Your task to perform on an android device: change keyboard looks Image 0: 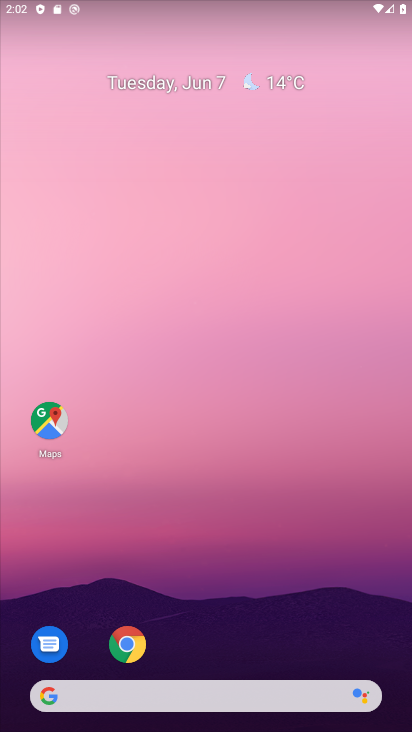
Step 0: drag from (329, 631) to (303, 182)
Your task to perform on an android device: change keyboard looks Image 1: 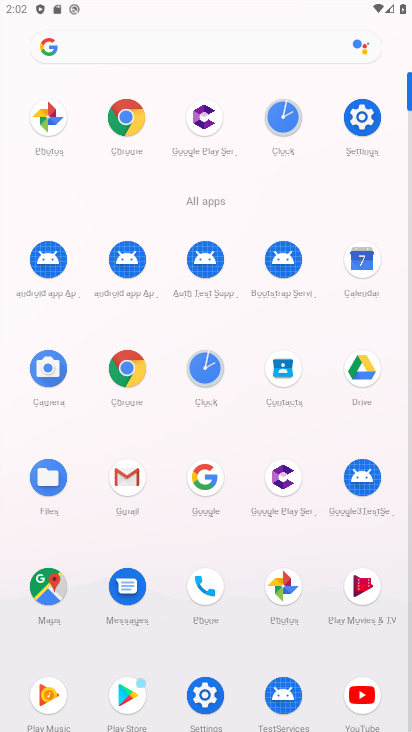
Step 1: click (358, 127)
Your task to perform on an android device: change keyboard looks Image 2: 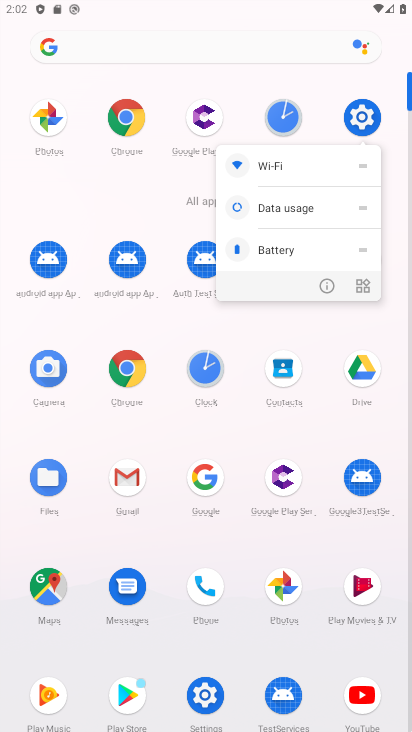
Step 2: click (368, 114)
Your task to perform on an android device: change keyboard looks Image 3: 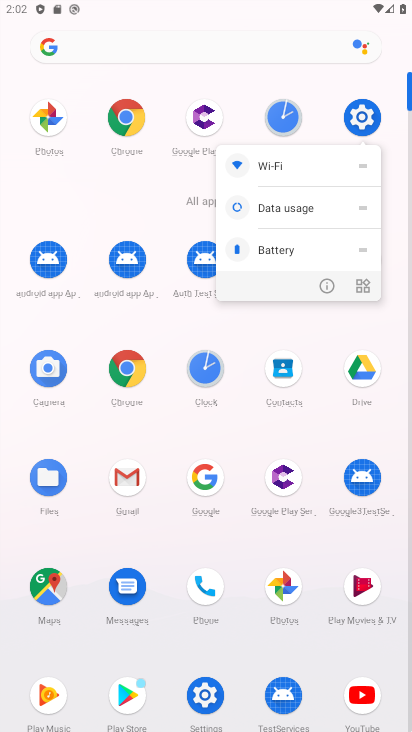
Step 3: click (338, 117)
Your task to perform on an android device: change keyboard looks Image 4: 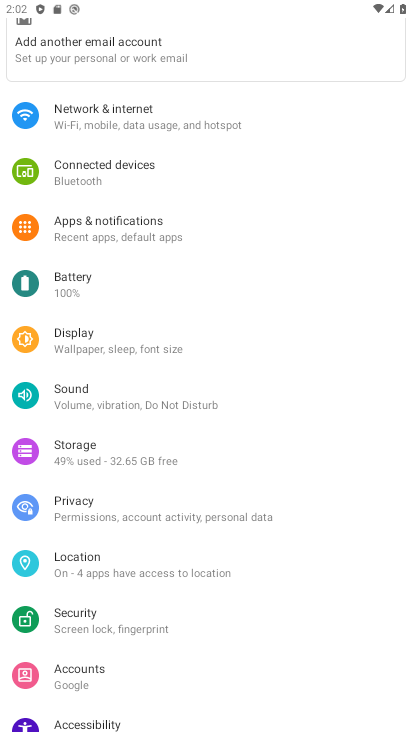
Step 4: drag from (300, 464) to (291, 380)
Your task to perform on an android device: change keyboard looks Image 5: 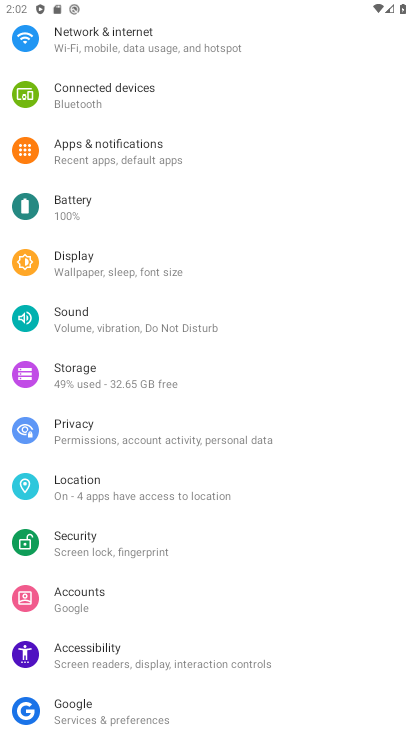
Step 5: drag from (313, 504) to (315, 373)
Your task to perform on an android device: change keyboard looks Image 6: 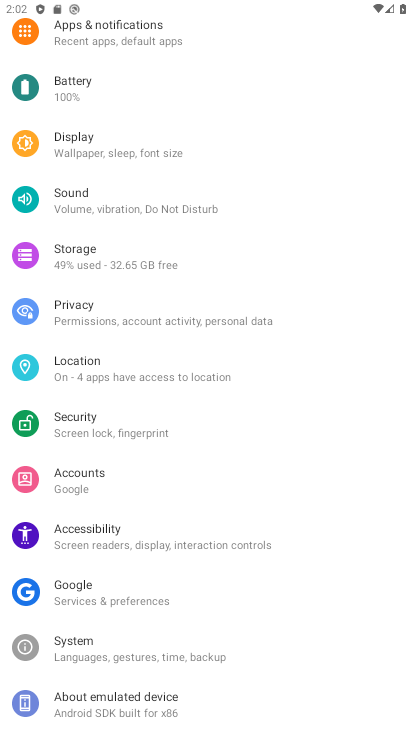
Step 6: click (244, 647)
Your task to perform on an android device: change keyboard looks Image 7: 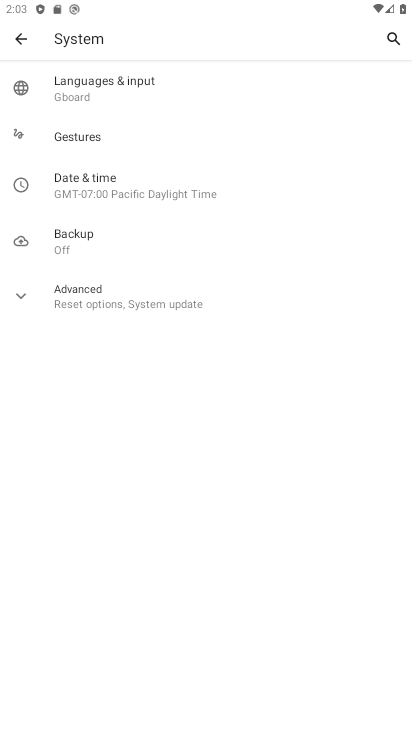
Step 7: click (132, 96)
Your task to perform on an android device: change keyboard looks Image 8: 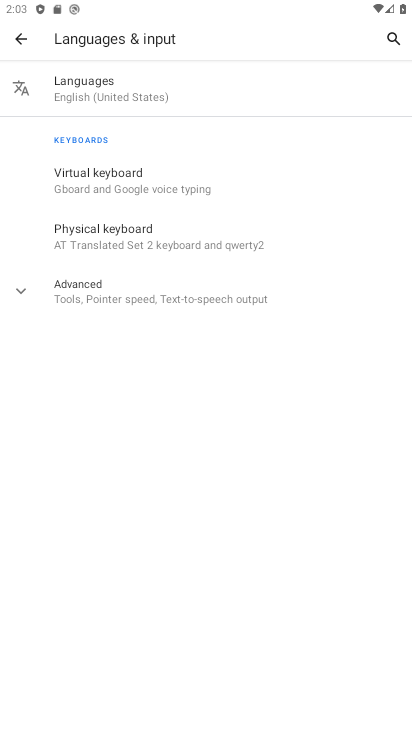
Step 8: click (185, 179)
Your task to perform on an android device: change keyboard looks Image 9: 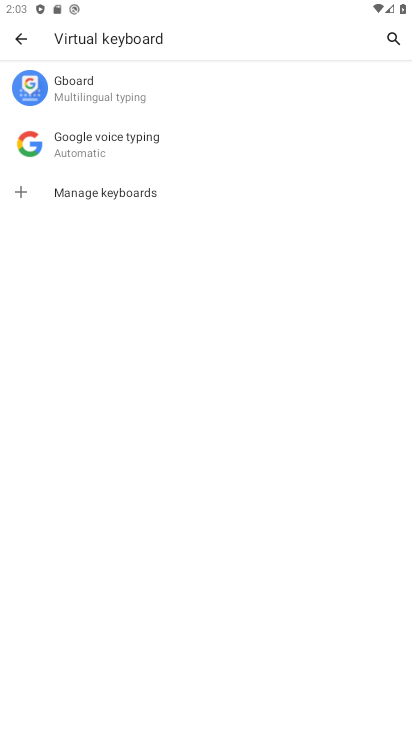
Step 9: click (128, 104)
Your task to perform on an android device: change keyboard looks Image 10: 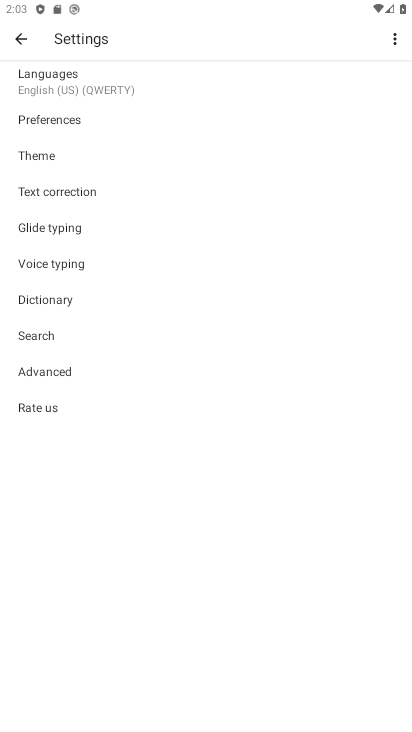
Step 10: click (65, 165)
Your task to perform on an android device: change keyboard looks Image 11: 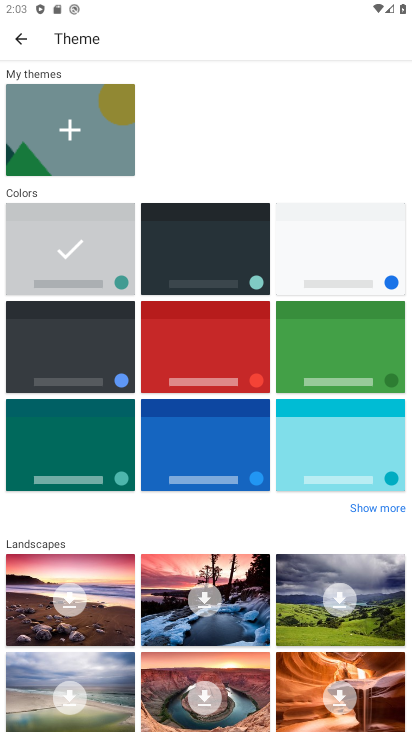
Step 11: click (272, 332)
Your task to perform on an android device: change keyboard looks Image 12: 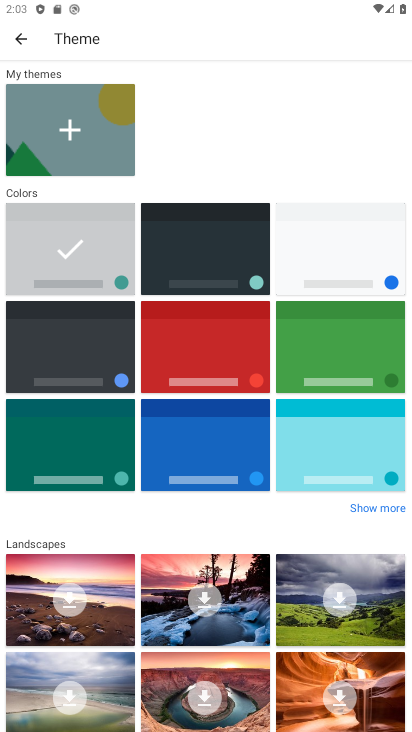
Step 12: task complete